Your task to perform on an android device: Open Google Image 0: 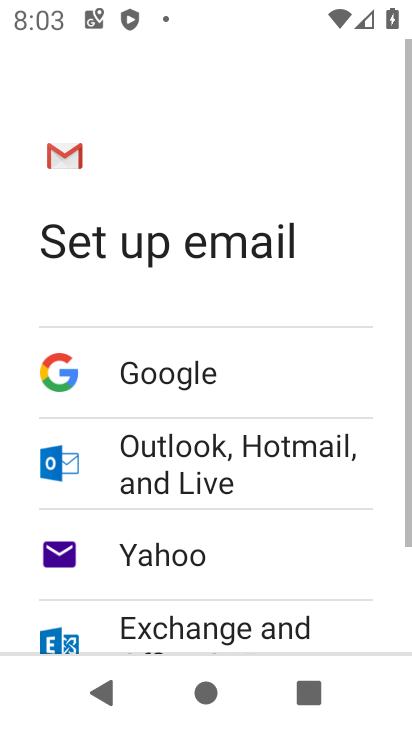
Step 0: press home button
Your task to perform on an android device: Open Google Image 1: 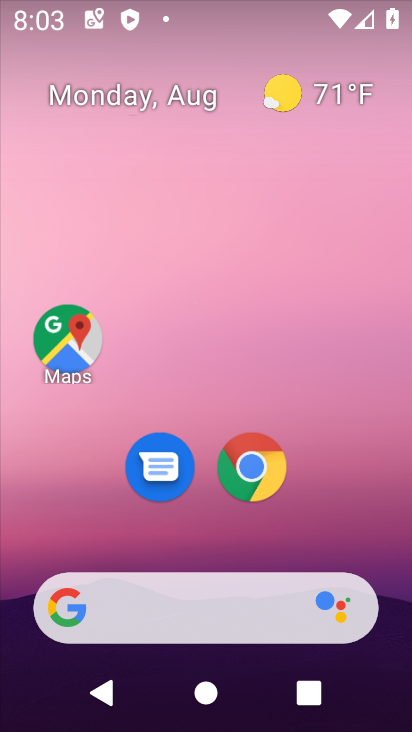
Step 1: drag from (355, 537) to (367, 214)
Your task to perform on an android device: Open Google Image 2: 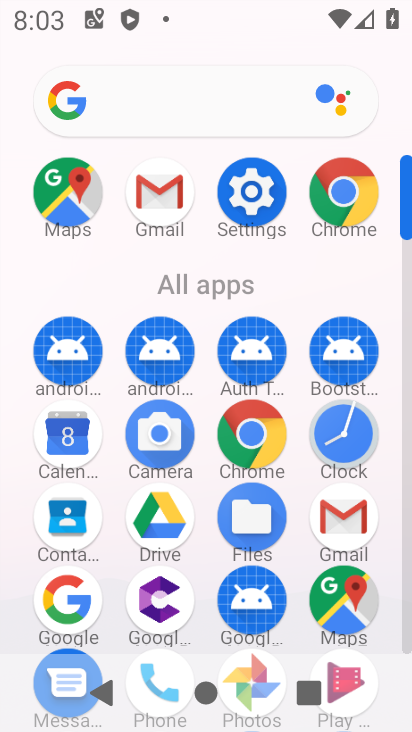
Step 2: click (58, 608)
Your task to perform on an android device: Open Google Image 3: 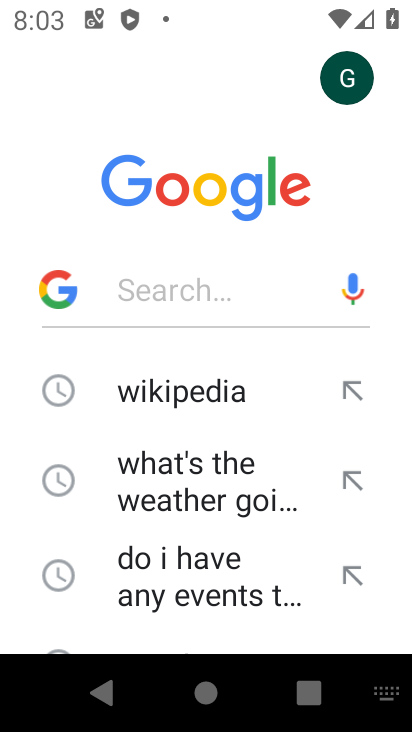
Step 3: task complete